Your task to perform on an android device: Do I have any events this weekend? Image 0: 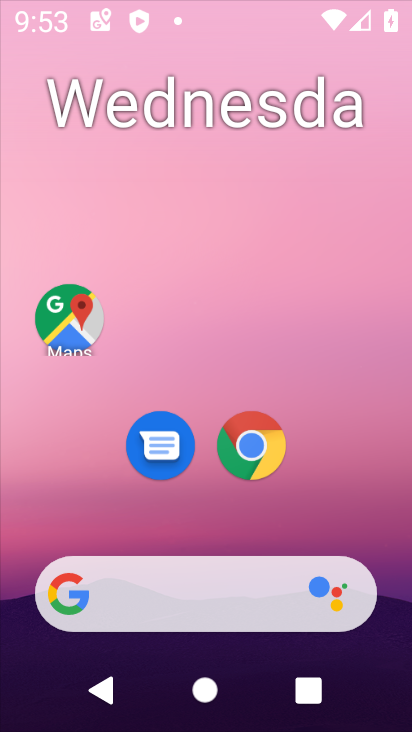
Step 0: click (66, 313)
Your task to perform on an android device: Do I have any events this weekend? Image 1: 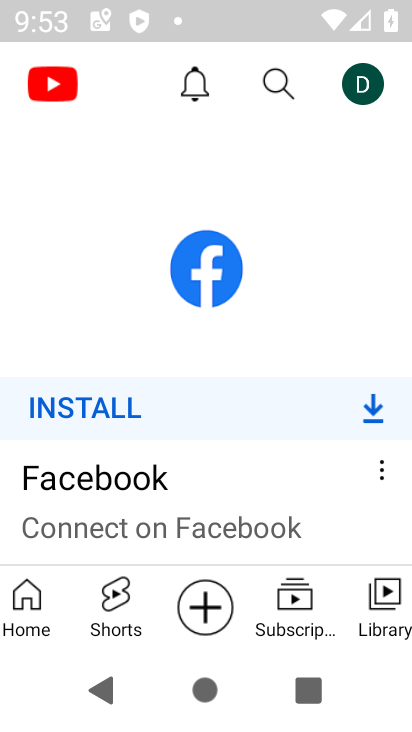
Step 1: press home button
Your task to perform on an android device: Do I have any events this weekend? Image 2: 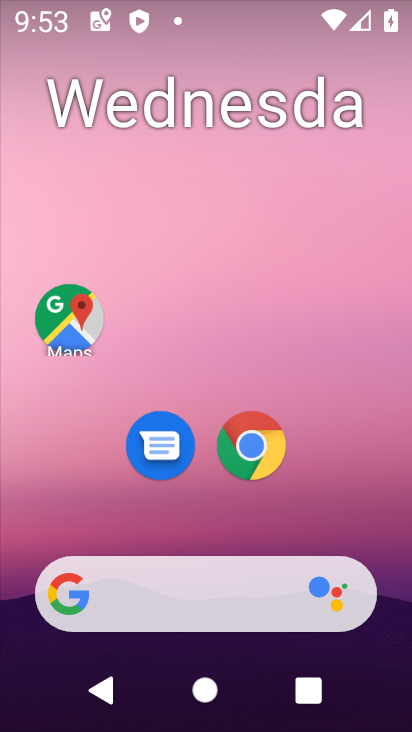
Step 2: drag from (164, 520) to (282, 74)
Your task to perform on an android device: Do I have any events this weekend? Image 3: 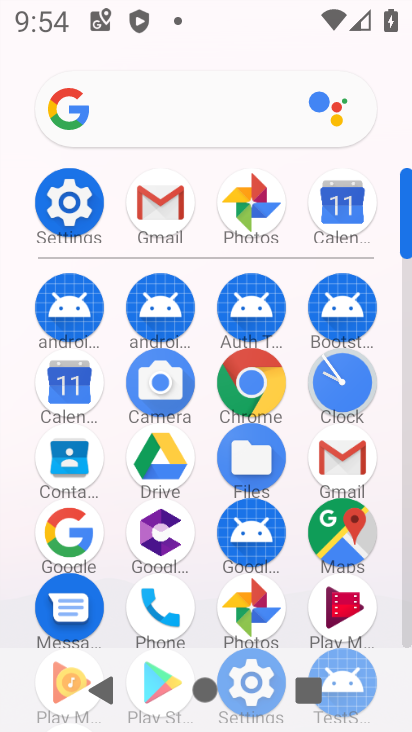
Step 3: click (67, 469)
Your task to perform on an android device: Do I have any events this weekend? Image 4: 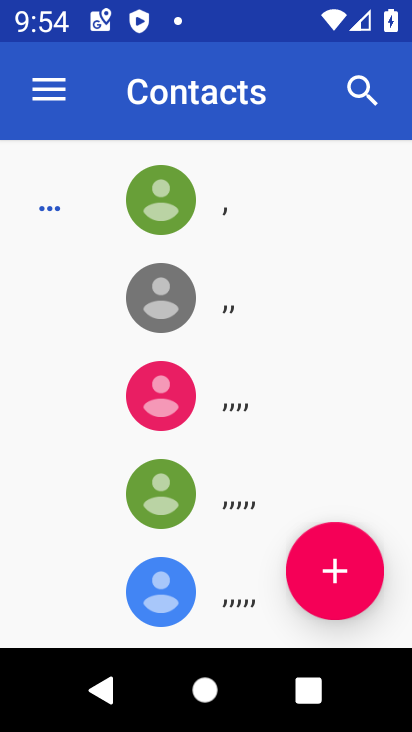
Step 4: press back button
Your task to perform on an android device: Do I have any events this weekend? Image 5: 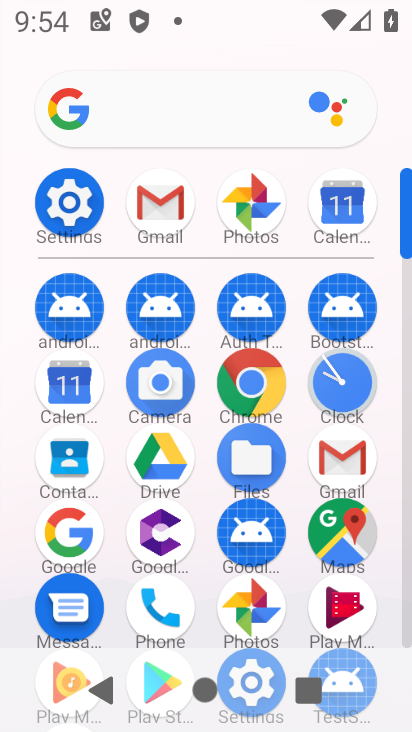
Step 5: click (71, 396)
Your task to perform on an android device: Do I have any events this weekend? Image 6: 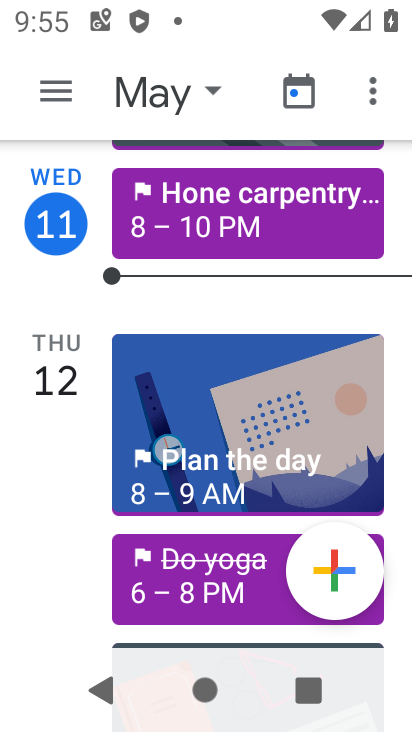
Step 6: drag from (185, 530) to (243, 119)
Your task to perform on an android device: Do I have any events this weekend? Image 7: 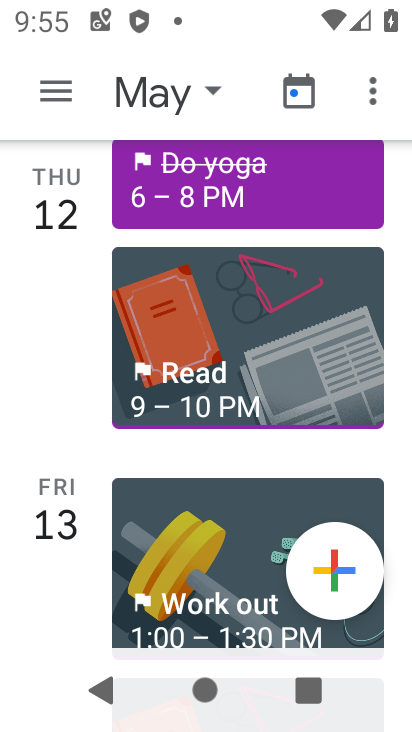
Step 7: drag from (229, 534) to (293, 151)
Your task to perform on an android device: Do I have any events this weekend? Image 8: 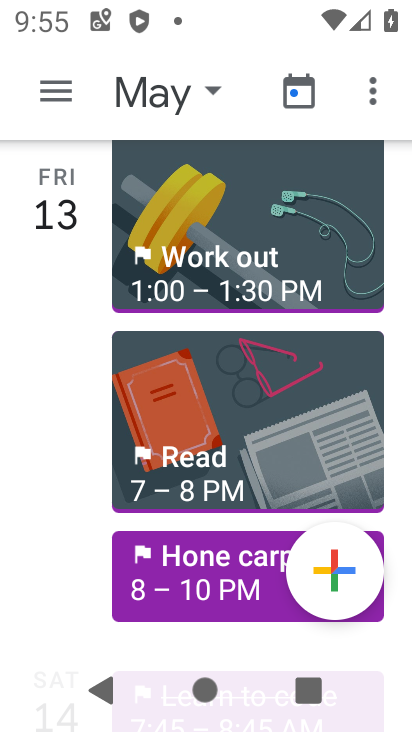
Step 8: drag from (195, 576) to (222, 113)
Your task to perform on an android device: Do I have any events this weekend? Image 9: 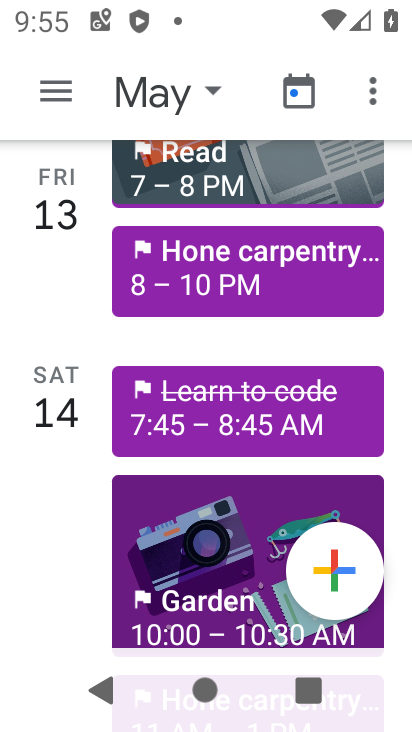
Step 9: drag from (178, 565) to (228, 141)
Your task to perform on an android device: Do I have any events this weekend? Image 10: 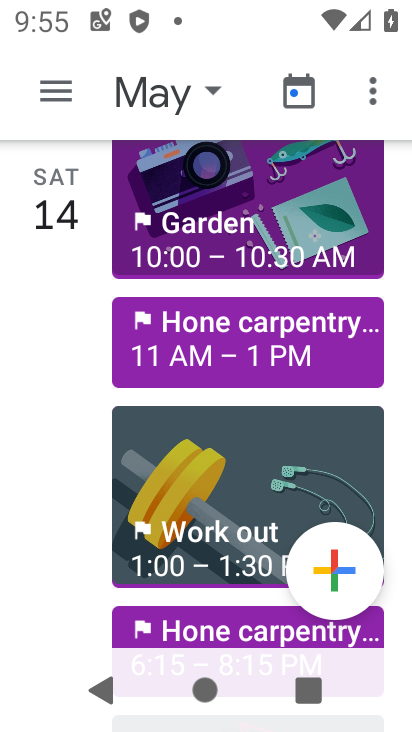
Step 10: click (182, 520)
Your task to perform on an android device: Do I have any events this weekend? Image 11: 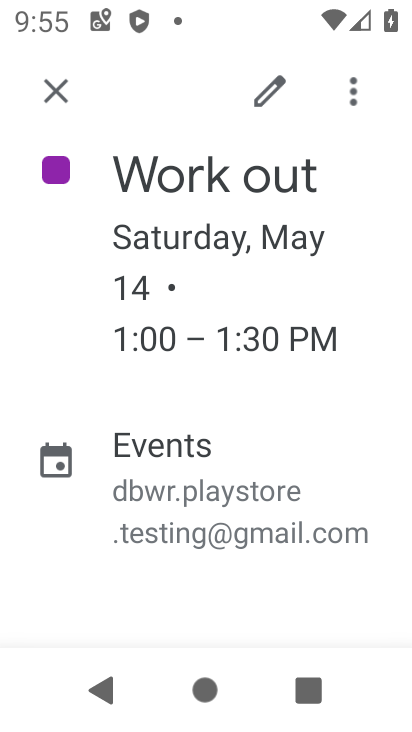
Step 11: task complete